Your task to perform on an android device: turn off wifi Image 0: 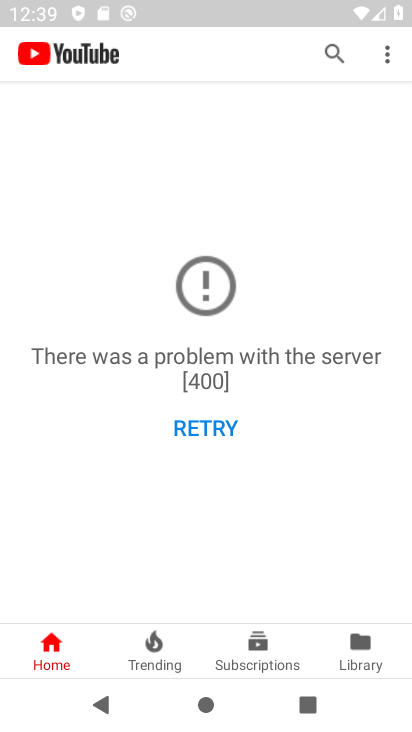
Step 0: drag from (201, 8) to (172, 592)
Your task to perform on an android device: turn off wifi Image 1: 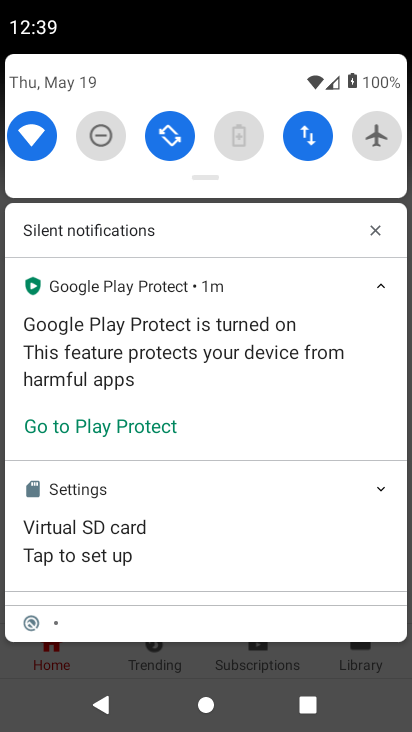
Step 1: click (41, 134)
Your task to perform on an android device: turn off wifi Image 2: 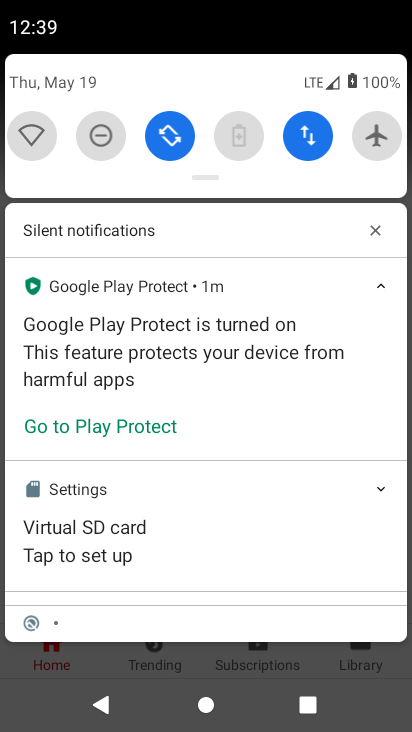
Step 2: task complete